Your task to perform on an android device: Open the map Image 0: 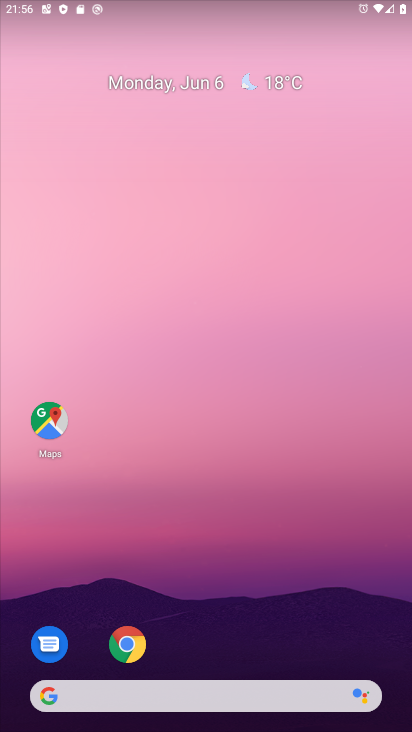
Step 0: drag from (311, 617) to (341, 158)
Your task to perform on an android device: Open the map Image 1: 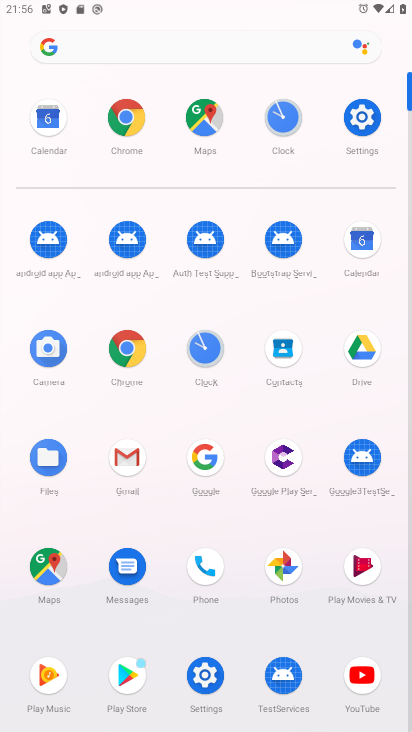
Step 1: click (46, 574)
Your task to perform on an android device: Open the map Image 2: 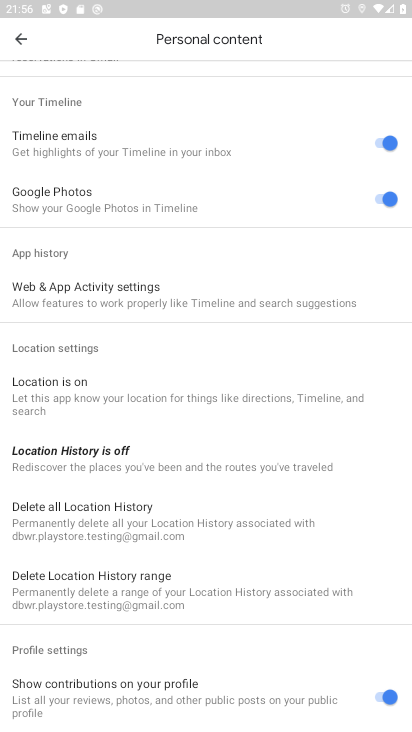
Step 2: click (18, 41)
Your task to perform on an android device: Open the map Image 3: 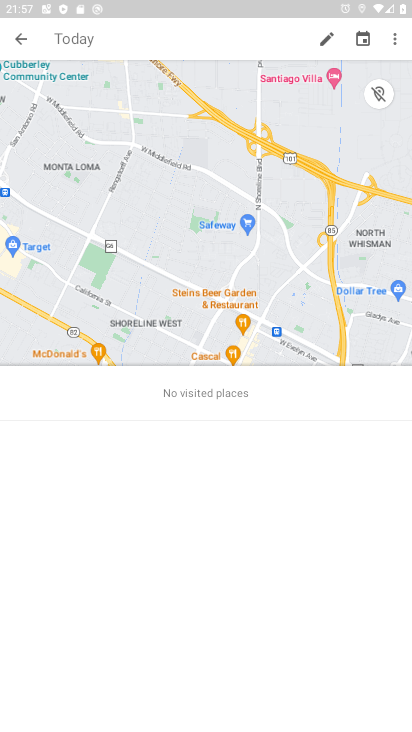
Step 3: click (19, 37)
Your task to perform on an android device: Open the map Image 4: 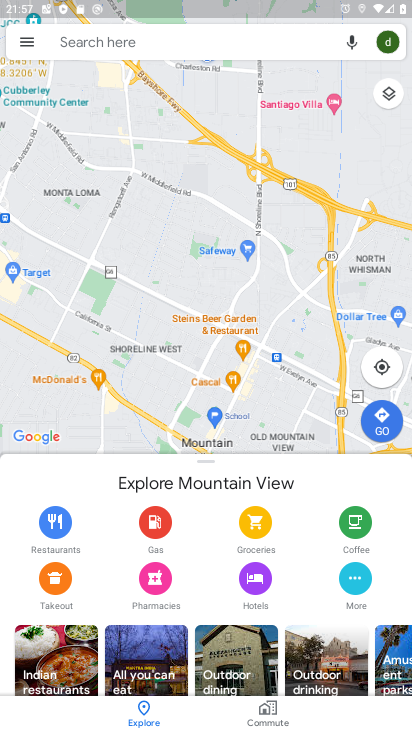
Step 4: task complete